Your task to perform on an android device: Open Yahoo.com Image 0: 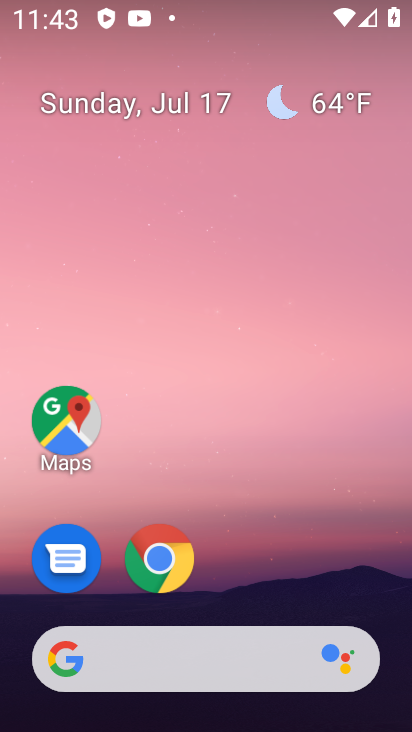
Step 0: drag from (332, 537) to (331, 129)
Your task to perform on an android device: Open Yahoo.com Image 1: 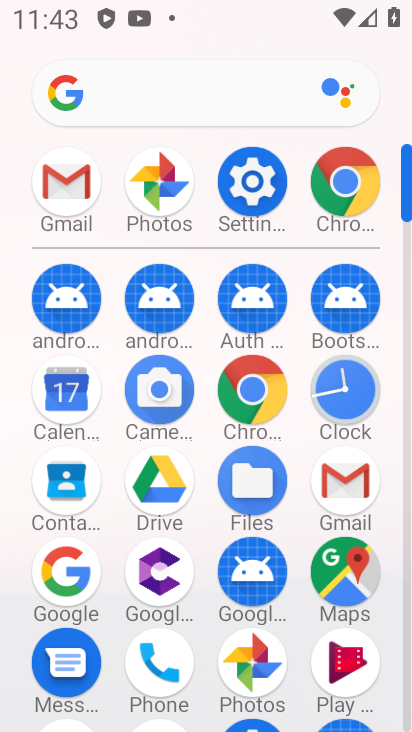
Step 1: click (234, 400)
Your task to perform on an android device: Open Yahoo.com Image 2: 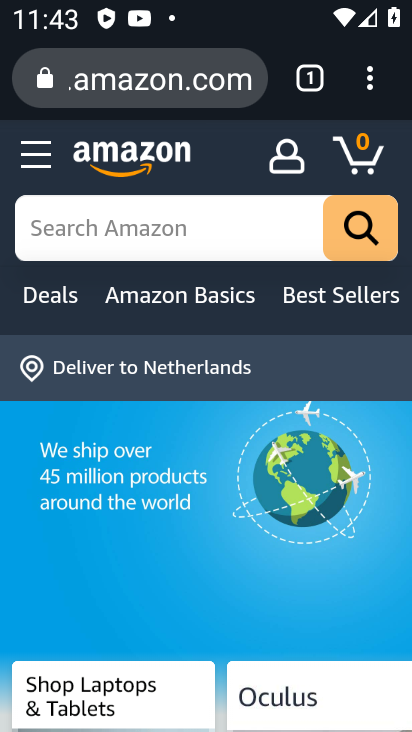
Step 2: click (188, 95)
Your task to perform on an android device: Open Yahoo.com Image 3: 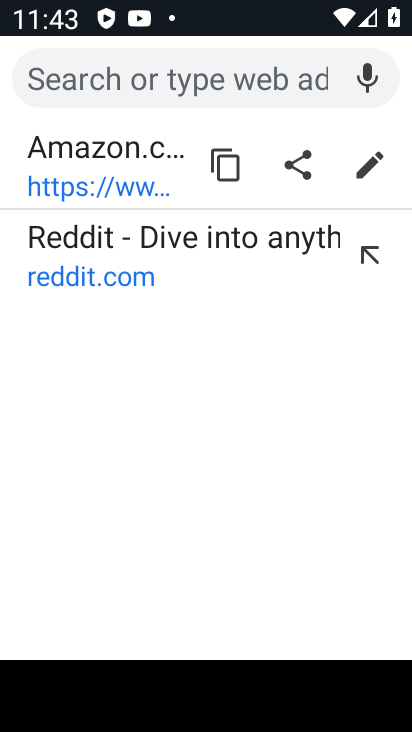
Step 3: type "yahoo.com"
Your task to perform on an android device: Open Yahoo.com Image 4: 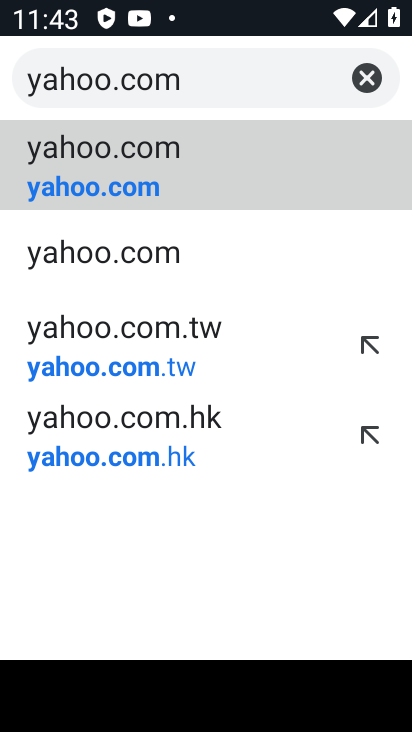
Step 4: click (223, 173)
Your task to perform on an android device: Open Yahoo.com Image 5: 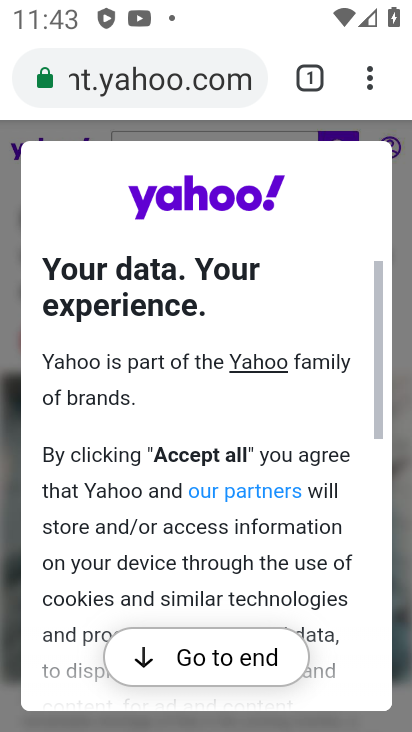
Step 5: task complete